Your task to perform on an android device: Show the shopping cart on newegg. Add razer deathadder to the cart on newegg Image 0: 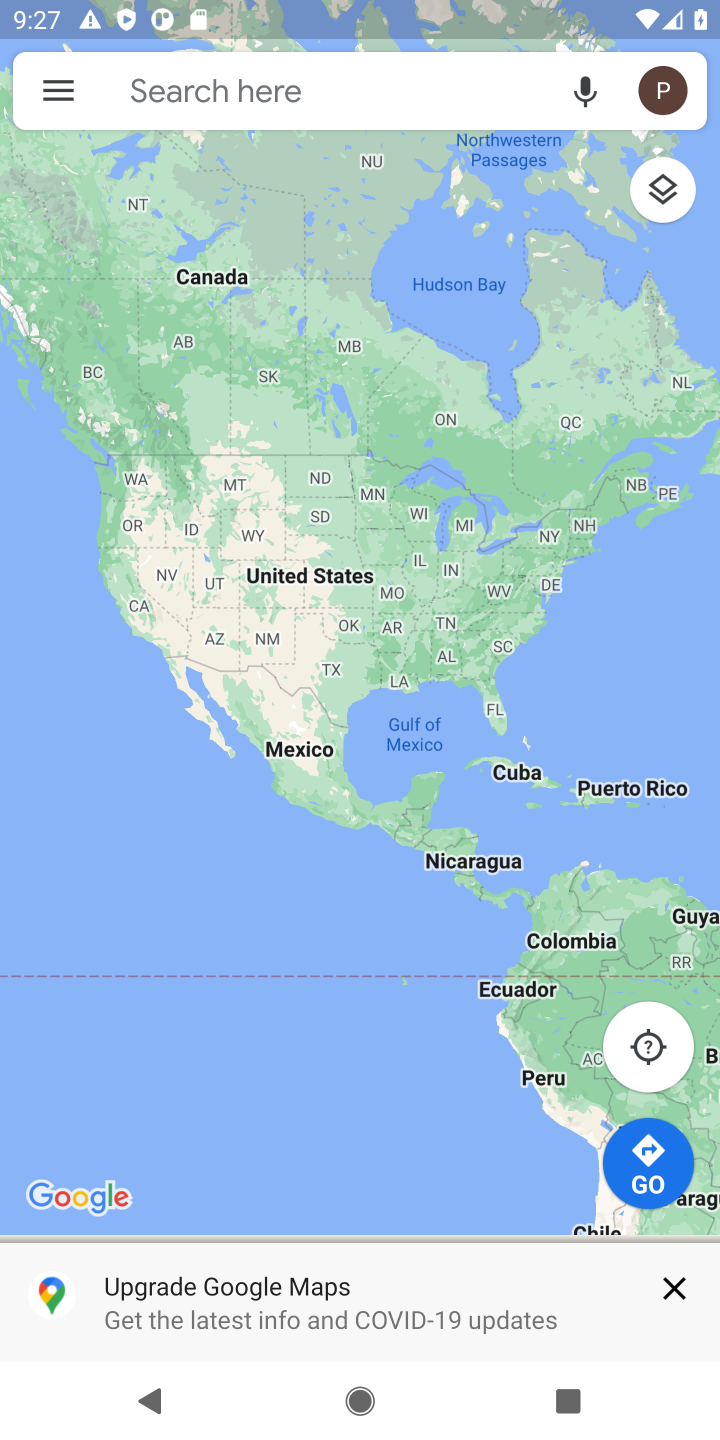
Step 0: press home button
Your task to perform on an android device: Show the shopping cart on newegg. Add razer deathadder to the cart on newegg Image 1: 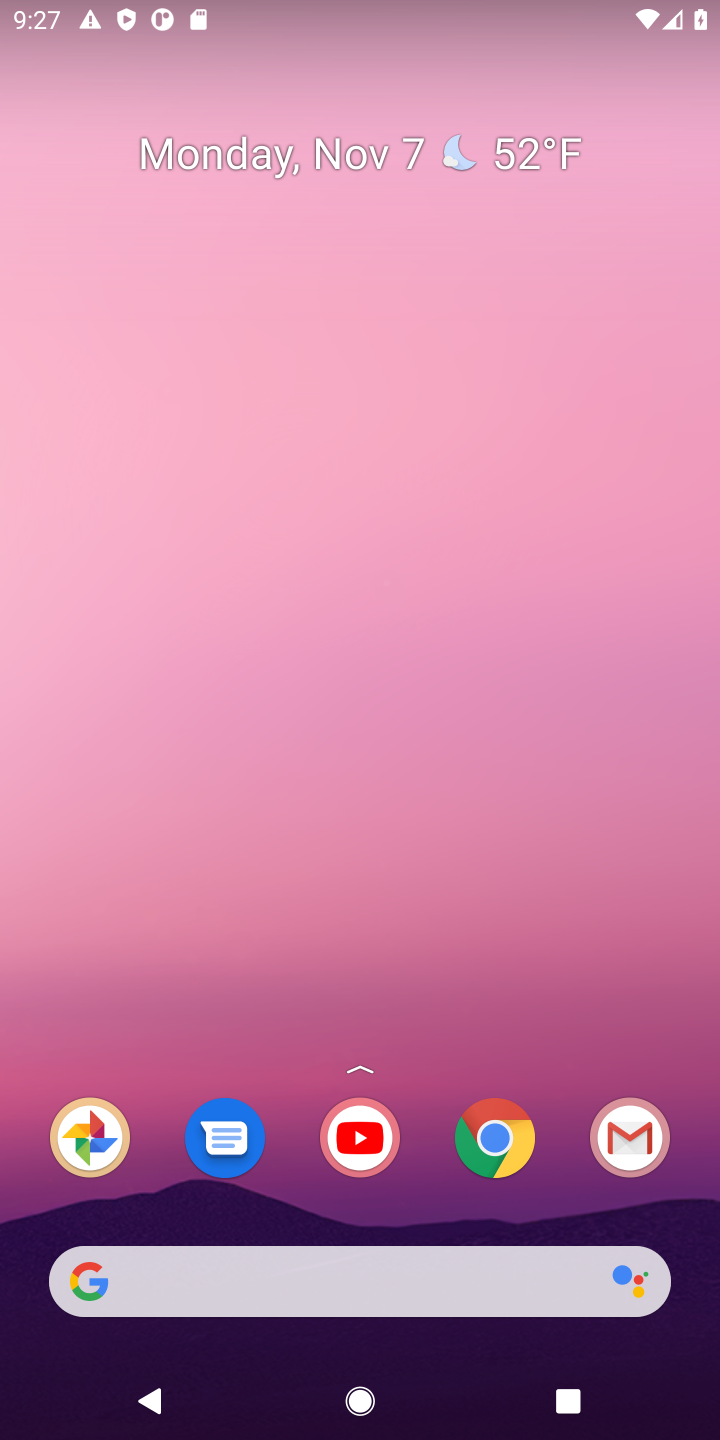
Step 1: drag from (453, 938) to (503, 217)
Your task to perform on an android device: Show the shopping cart on newegg. Add razer deathadder to the cart on newegg Image 2: 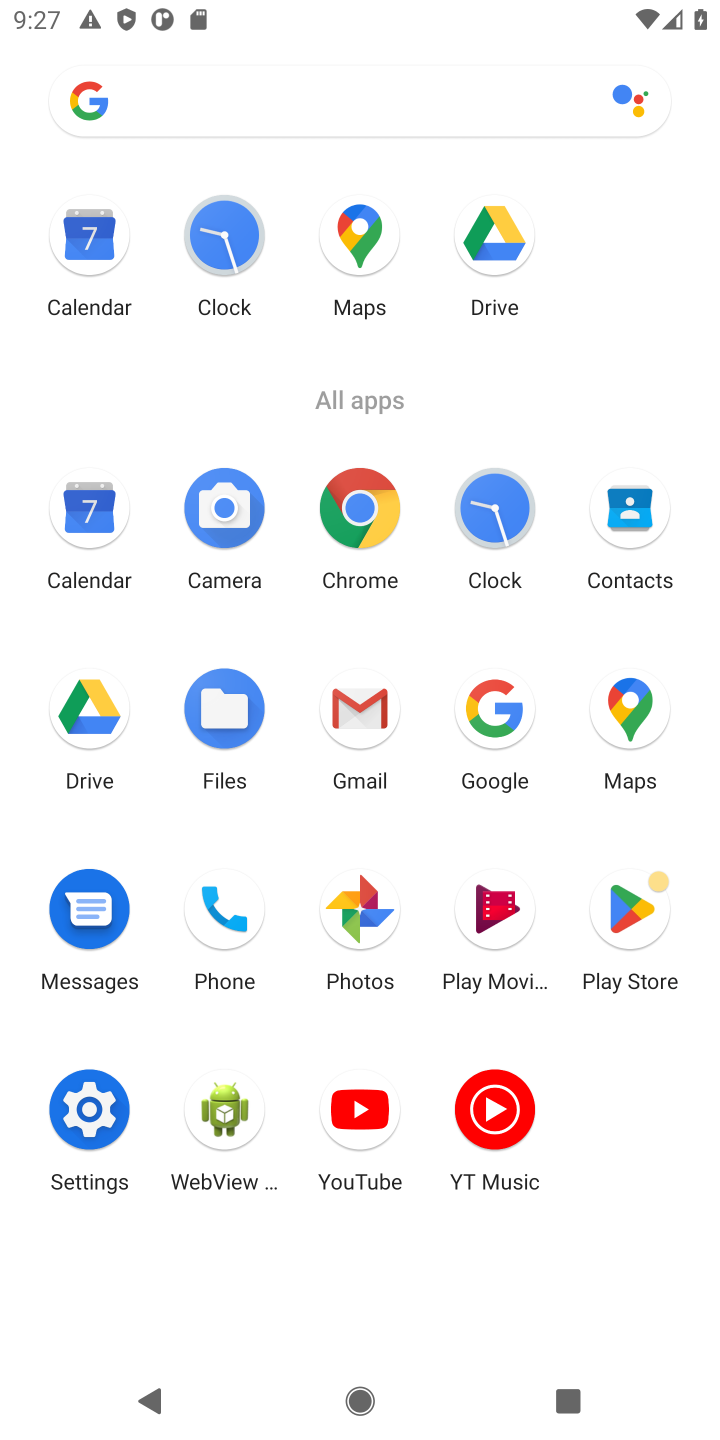
Step 2: click (374, 505)
Your task to perform on an android device: Show the shopping cart on newegg. Add razer deathadder to the cart on newegg Image 3: 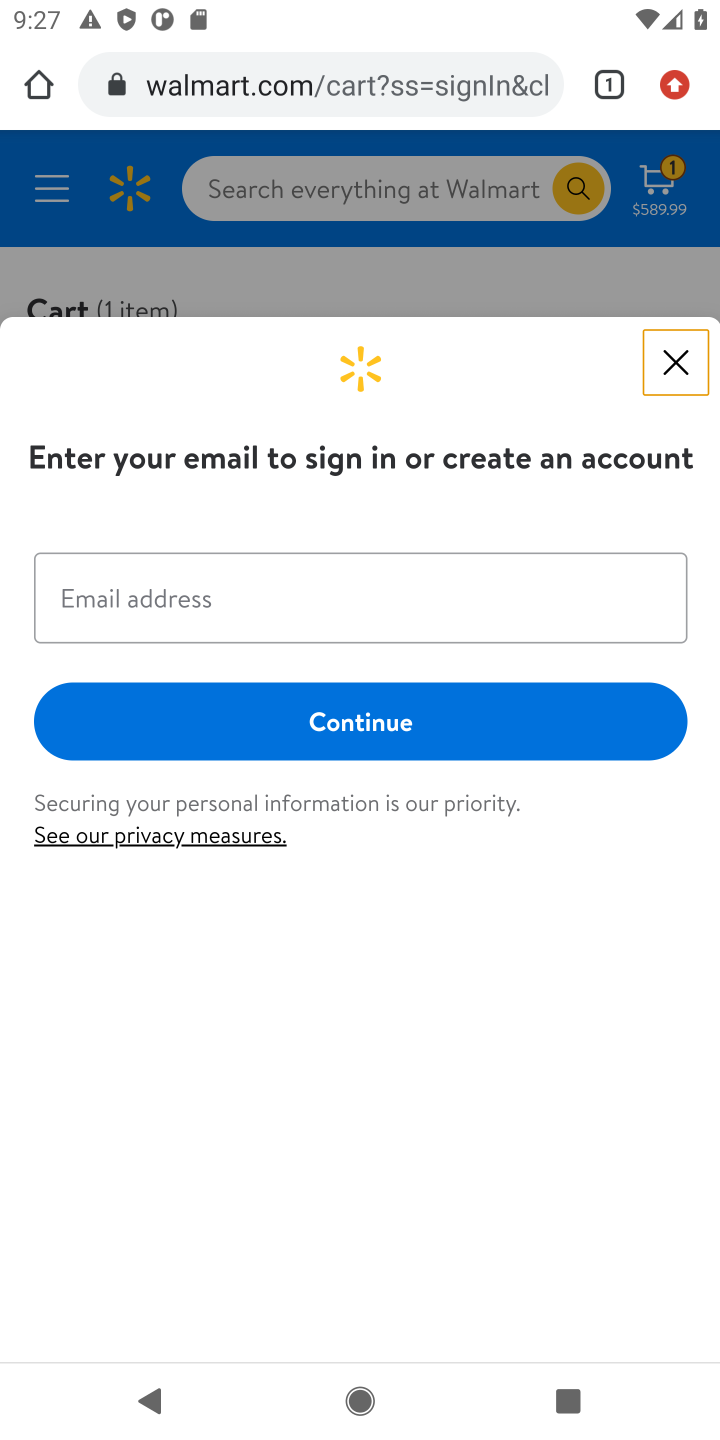
Step 3: click (330, 92)
Your task to perform on an android device: Show the shopping cart on newegg. Add razer deathadder to the cart on newegg Image 4: 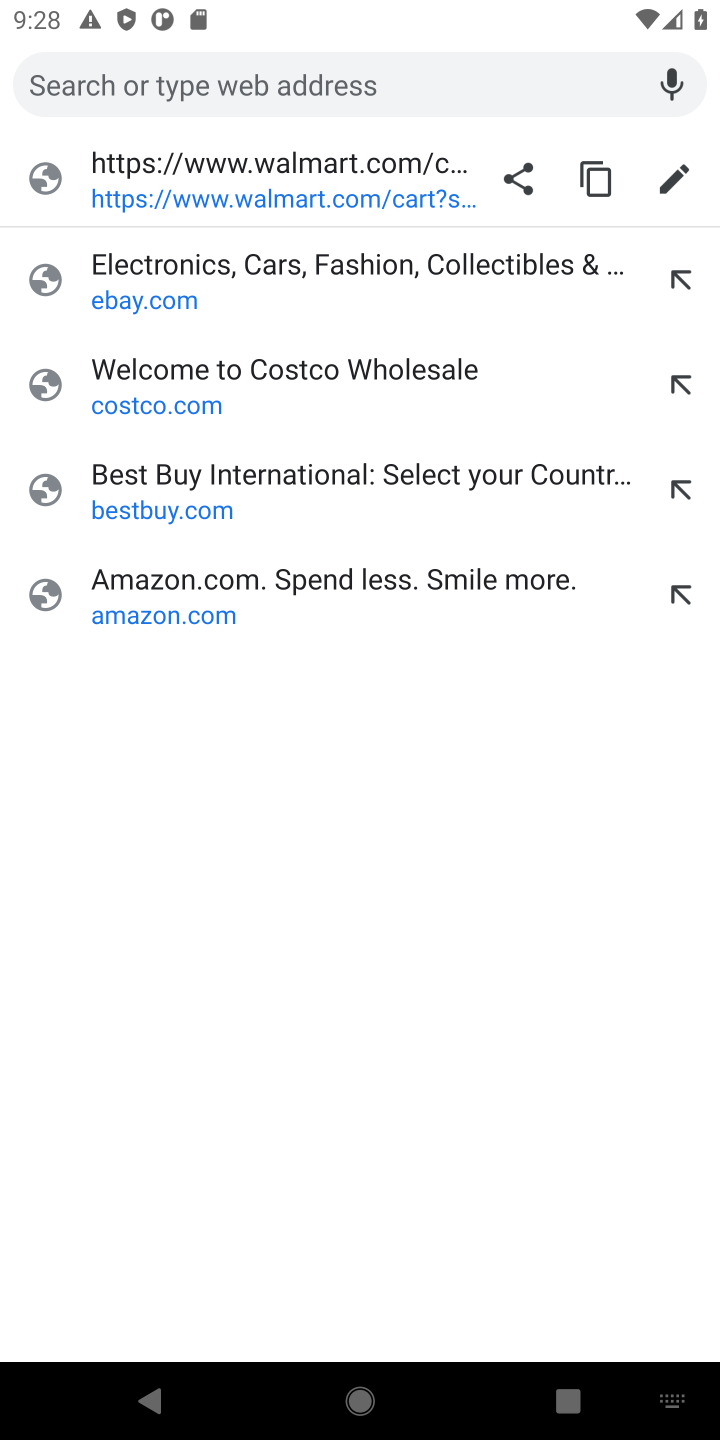
Step 4: type "newegg.com"
Your task to perform on an android device: Show the shopping cart on newegg. Add razer deathadder to the cart on newegg Image 5: 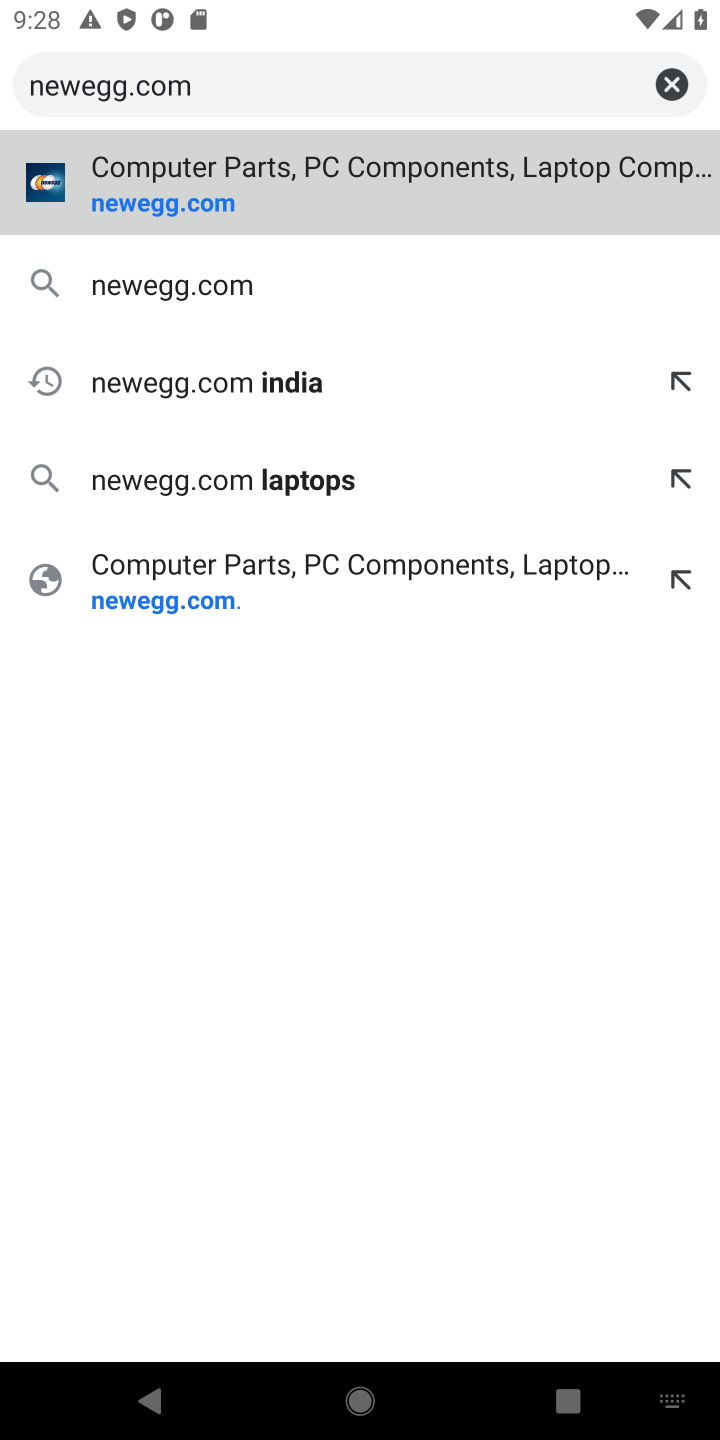
Step 5: press enter
Your task to perform on an android device: Show the shopping cart on newegg. Add razer deathadder to the cart on newegg Image 6: 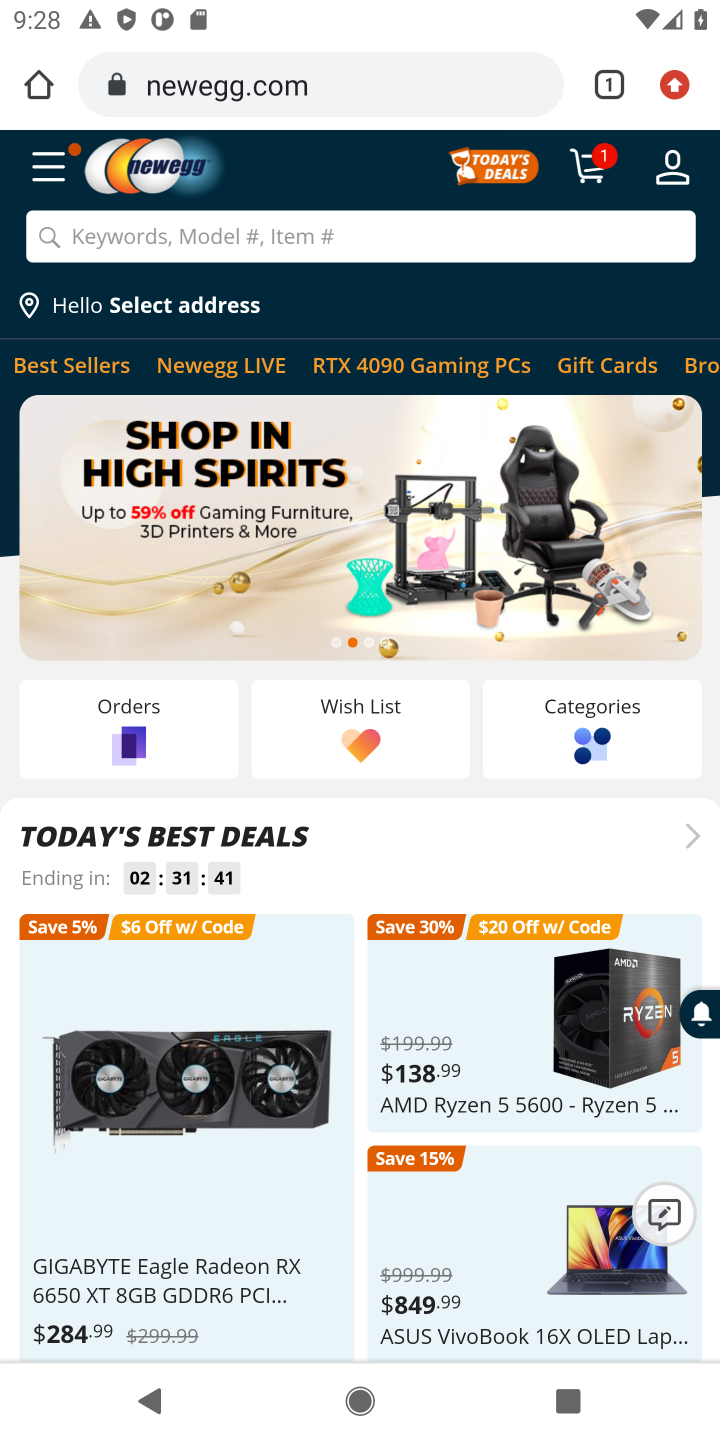
Step 6: click (321, 239)
Your task to perform on an android device: Show the shopping cart on newegg. Add razer deathadder to the cart on newegg Image 7: 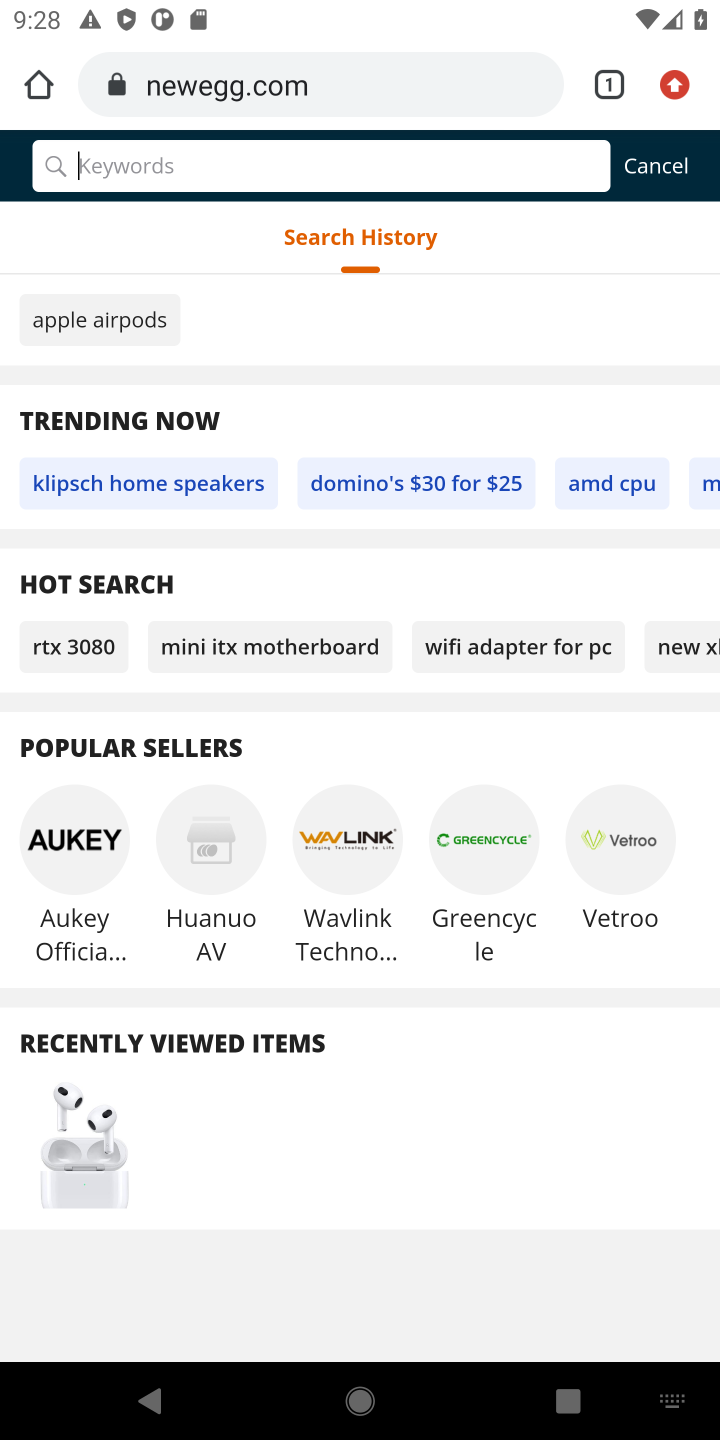
Step 7: type "razer deathadder"
Your task to perform on an android device: Show the shopping cart on newegg. Add razer deathadder to the cart on newegg Image 8: 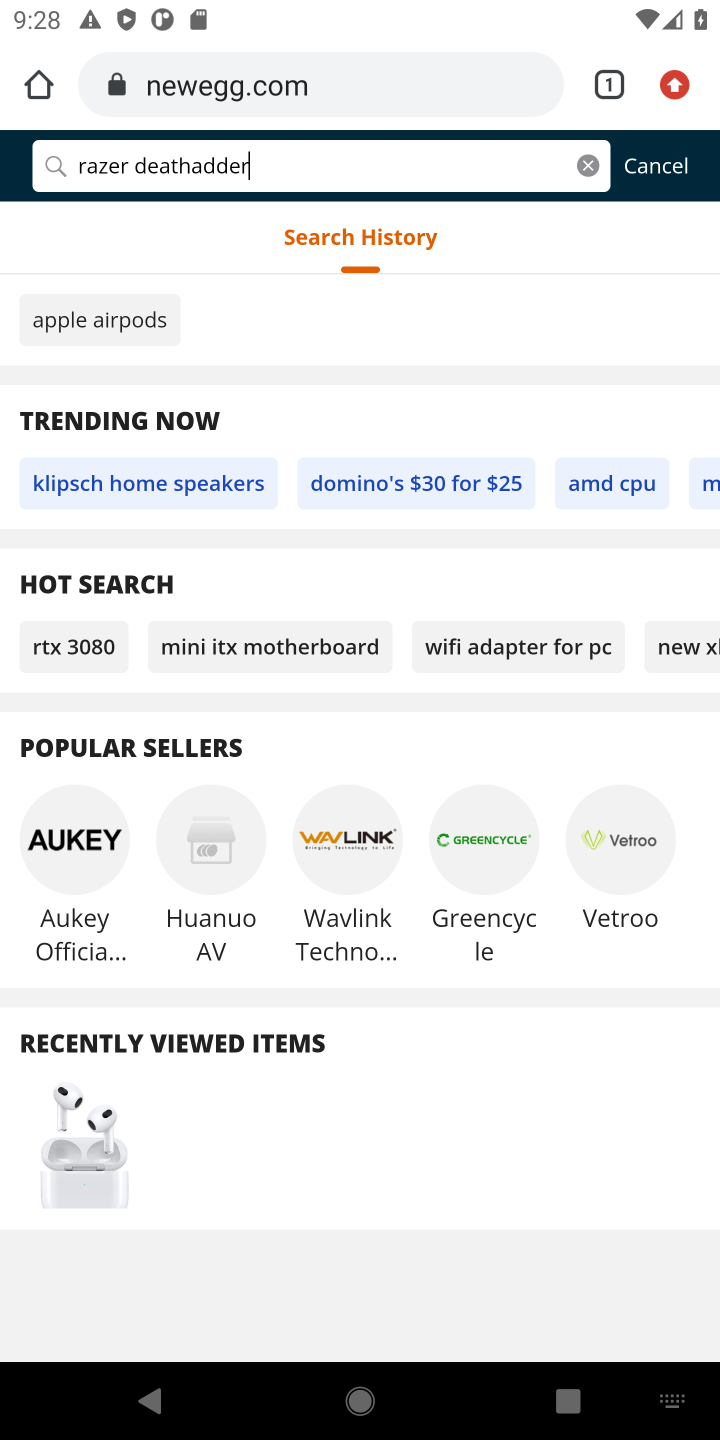
Step 8: press enter
Your task to perform on an android device: Show the shopping cart on newegg. Add razer deathadder to the cart on newegg Image 9: 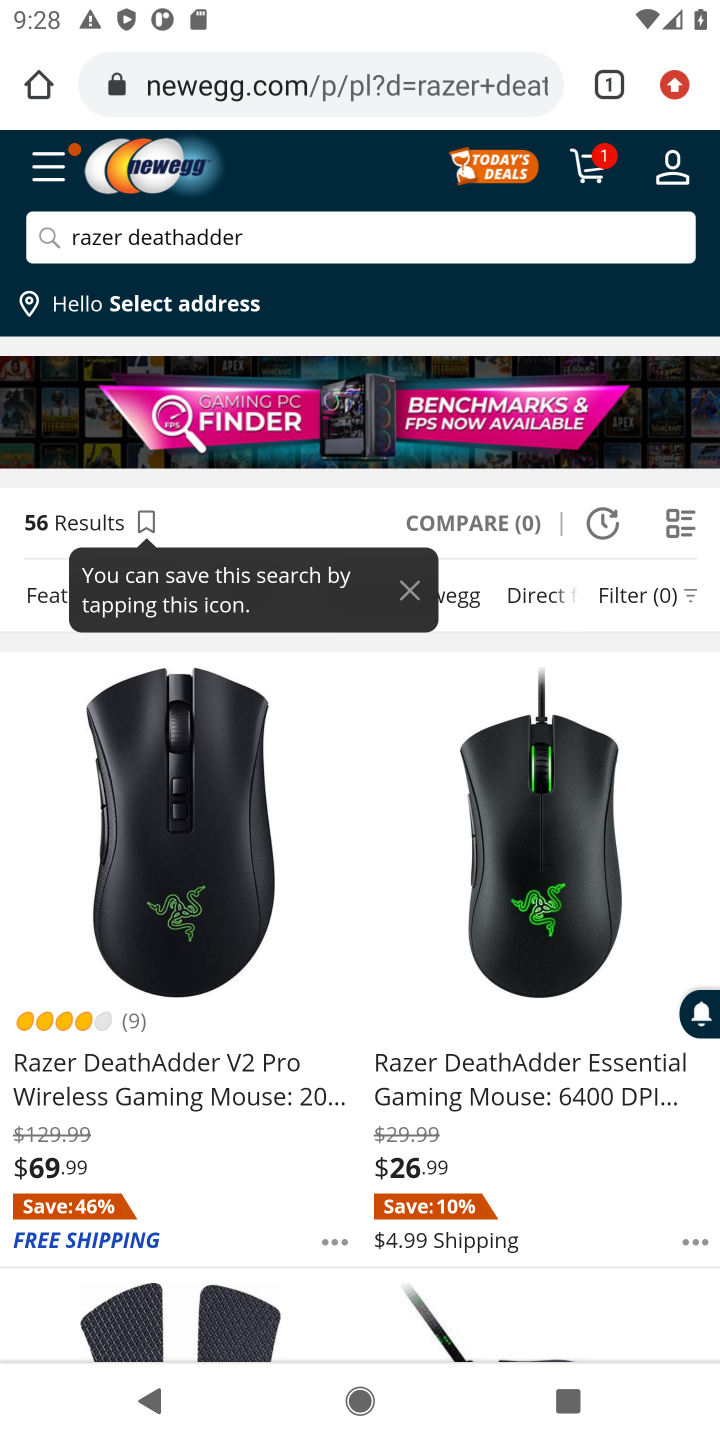
Step 9: click (167, 1072)
Your task to perform on an android device: Show the shopping cart on newegg. Add razer deathadder to the cart on newegg Image 10: 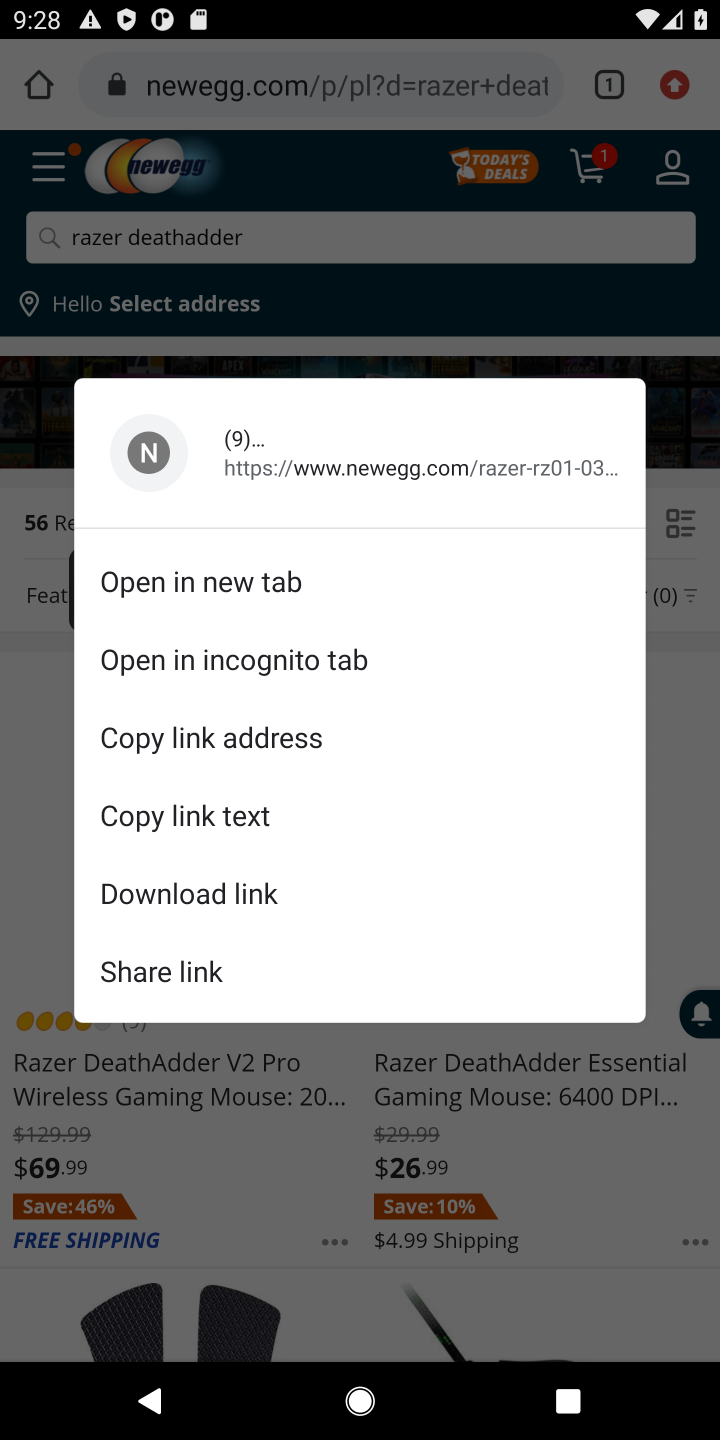
Step 10: click (174, 1099)
Your task to perform on an android device: Show the shopping cart on newegg. Add razer deathadder to the cart on newegg Image 11: 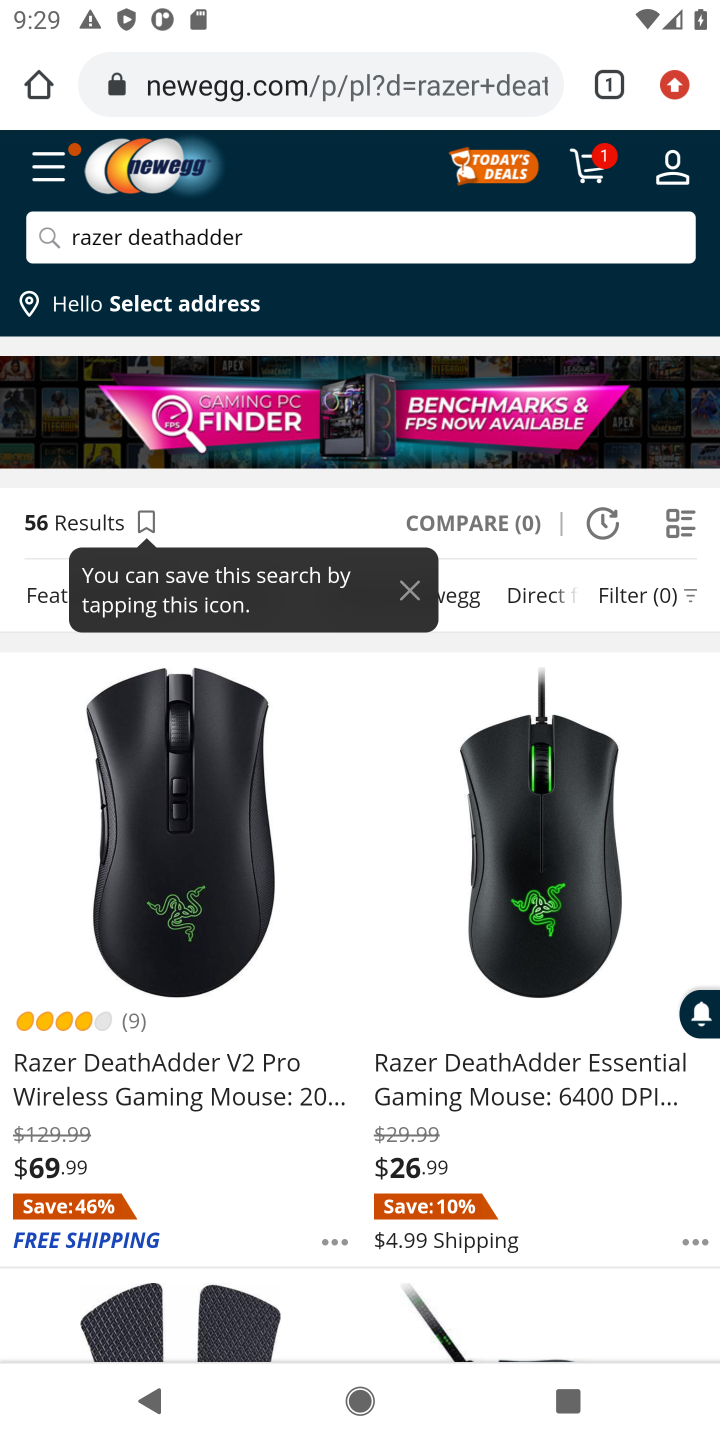
Step 11: click (165, 1074)
Your task to perform on an android device: Show the shopping cart on newegg. Add razer deathadder to the cart on newegg Image 12: 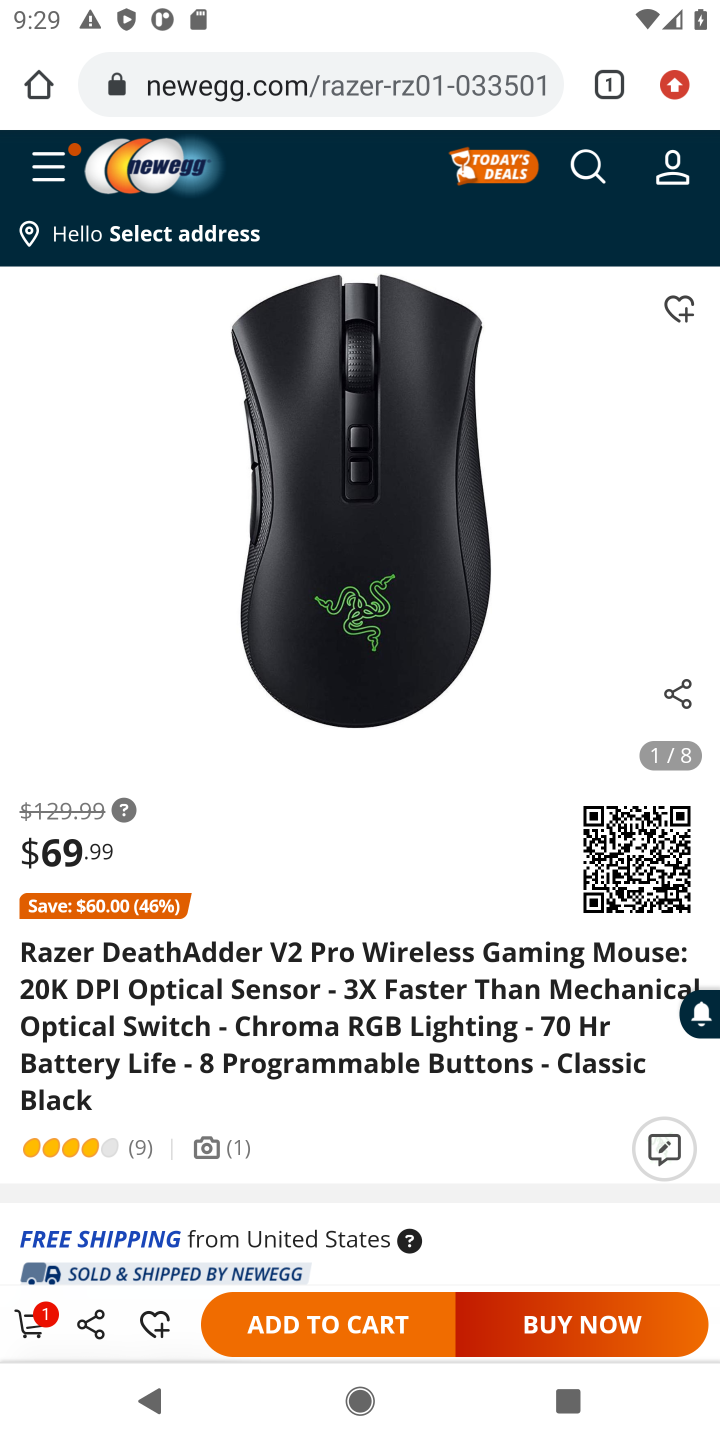
Step 12: click (361, 1334)
Your task to perform on an android device: Show the shopping cart on newegg. Add razer deathadder to the cart on newegg Image 13: 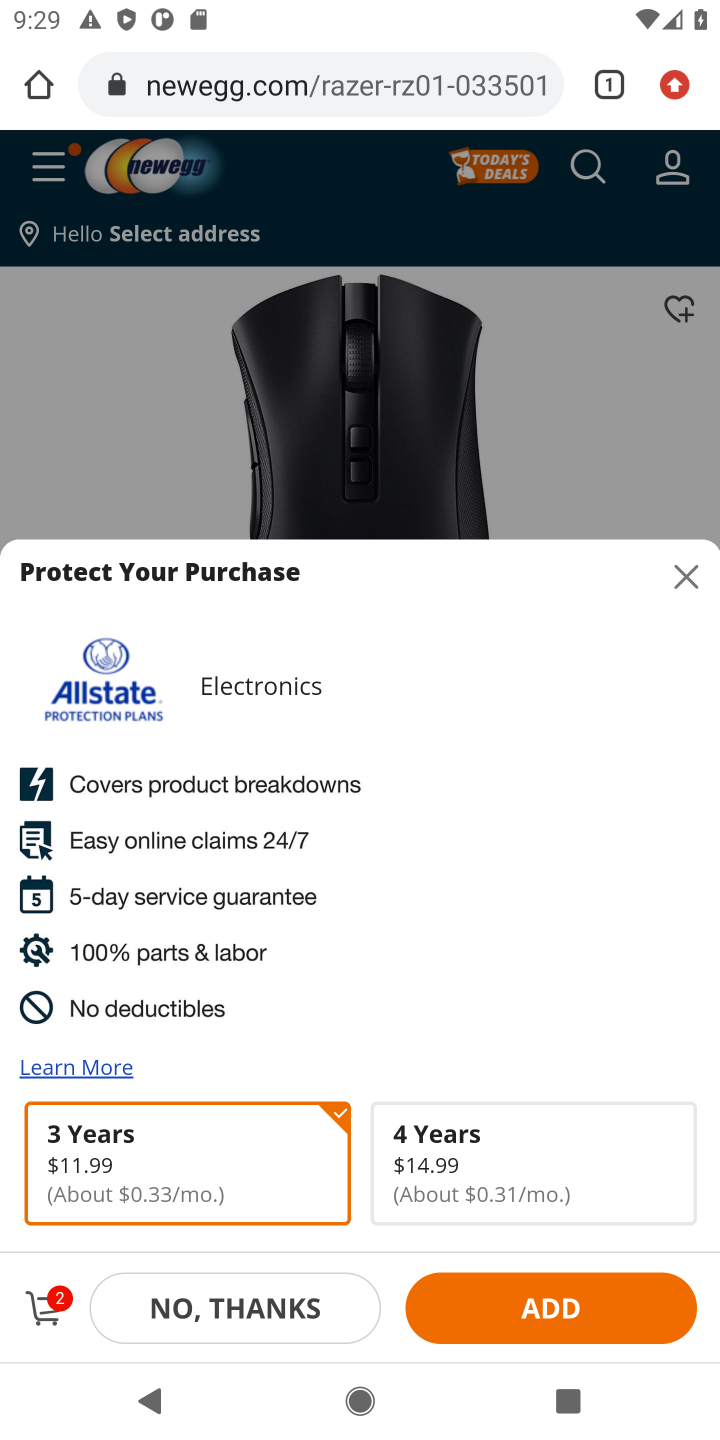
Step 13: task complete